Your task to perform on an android device: Go to battery settings Image 0: 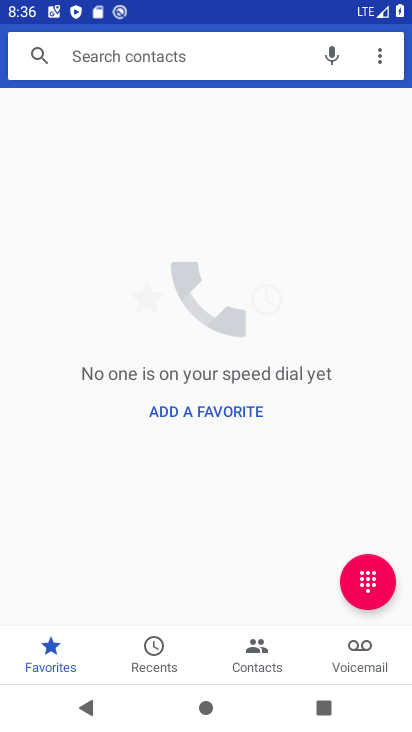
Step 0: press home button
Your task to perform on an android device: Go to battery settings Image 1: 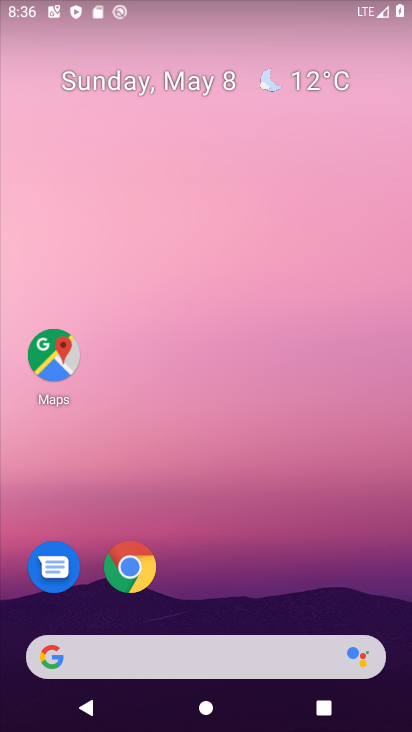
Step 1: drag from (212, 665) to (184, 57)
Your task to perform on an android device: Go to battery settings Image 2: 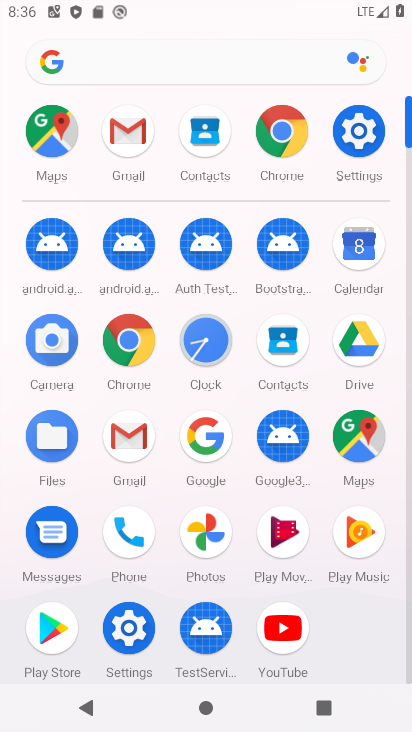
Step 2: click (363, 125)
Your task to perform on an android device: Go to battery settings Image 3: 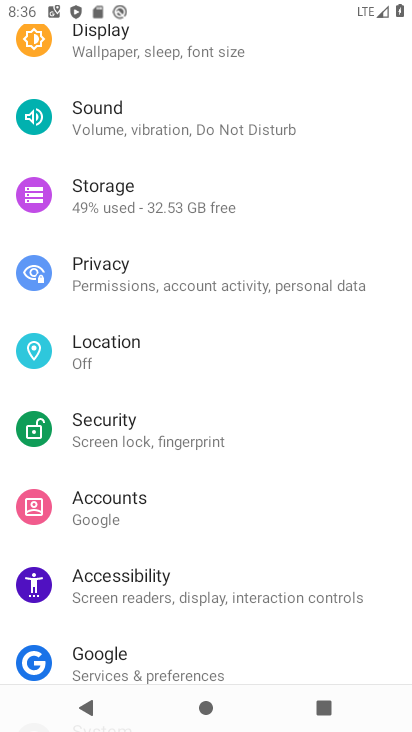
Step 3: drag from (176, 76) to (235, 479)
Your task to perform on an android device: Go to battery settings Image 4: 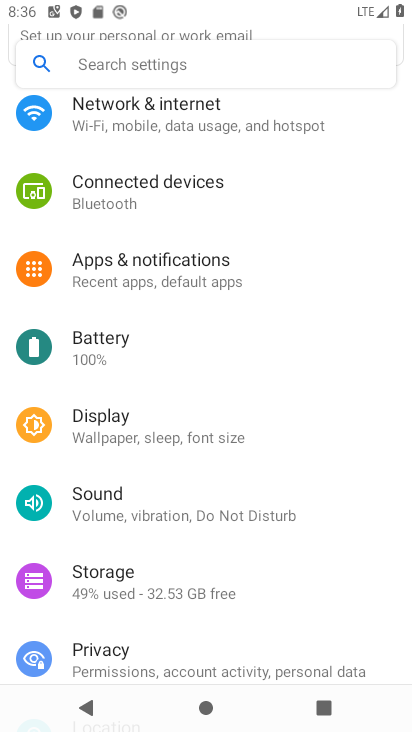
Step 4: click (124, 356)
Your task to perform on an android device: Go to battery settings Image 5: 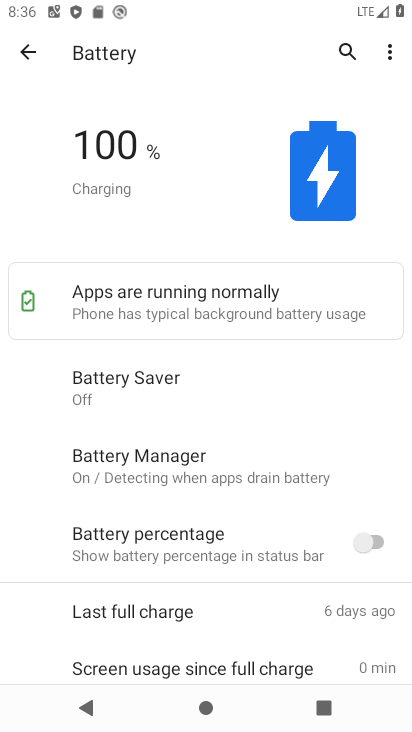
Step 5: task complete